Your task to perform on an android device: Open notification settings Image 0: 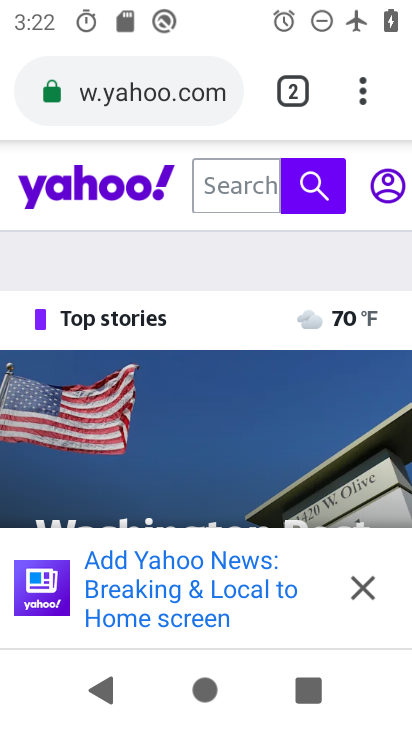
Step 0: press home button
Your task to perform on an android device: Open notification settings Image 1: 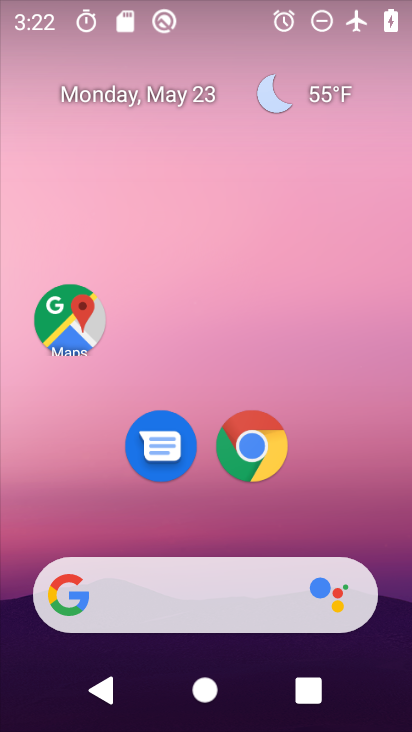
Step 1: drag from (165, 529) to (93, 226)
Your task to perform on an android device: Open notification settings Image 2: 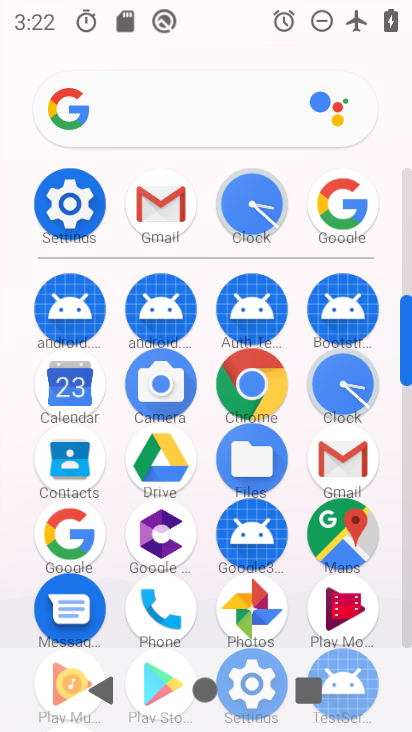
Step 2: click (89, 212)
Your task to perform on an android device: Open notification settings Image 3: 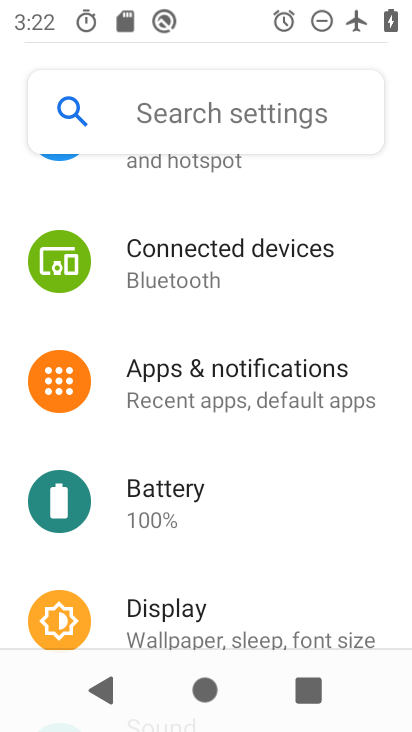
Step 3: click (243, 380)
Your task to perform on an android device: Open notification settings Image 4: 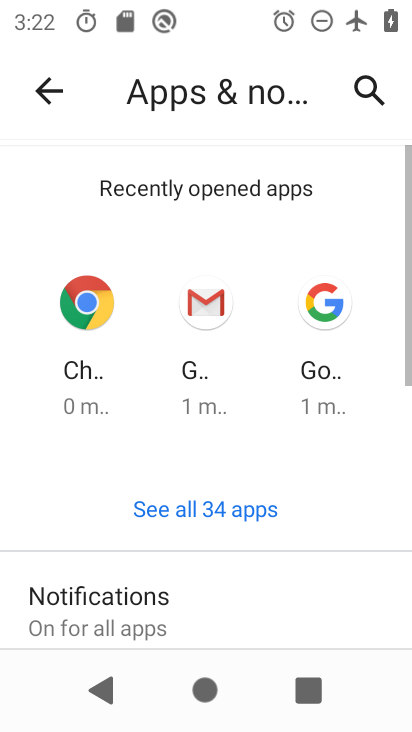
Step 4: click (182, 580)
Your task to perform on an android device: Open notification settings Image 5: 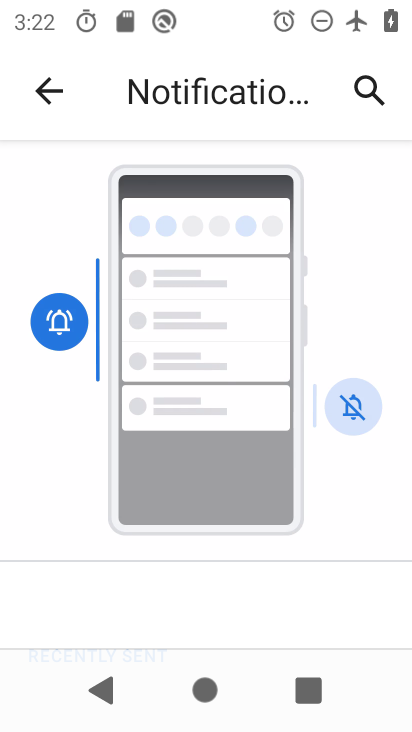
Step 5: task complete